Your task to perform on an android device: check battery use Image 0: 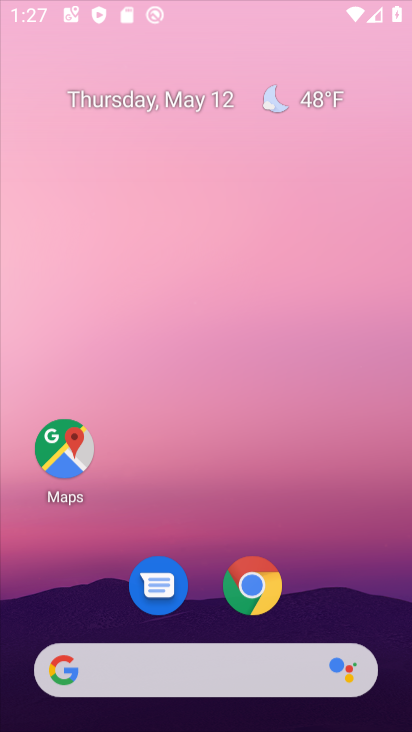
Step 0: click (247, 245)
Your task to perform on an android device: check battery use Image 1: 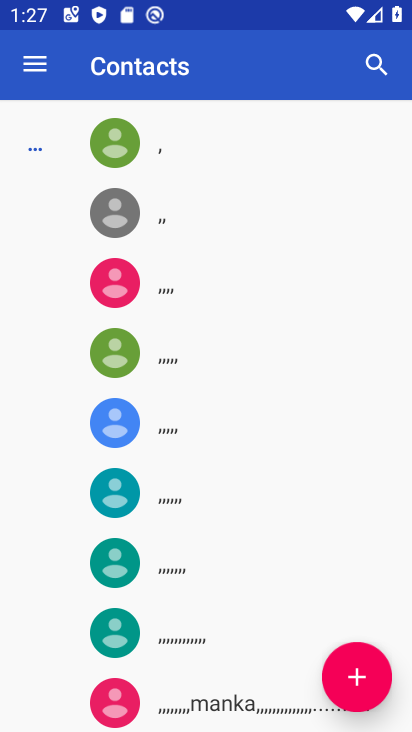
Step 1: press home button
Your task to perform on an android device: check battery use Image 2: 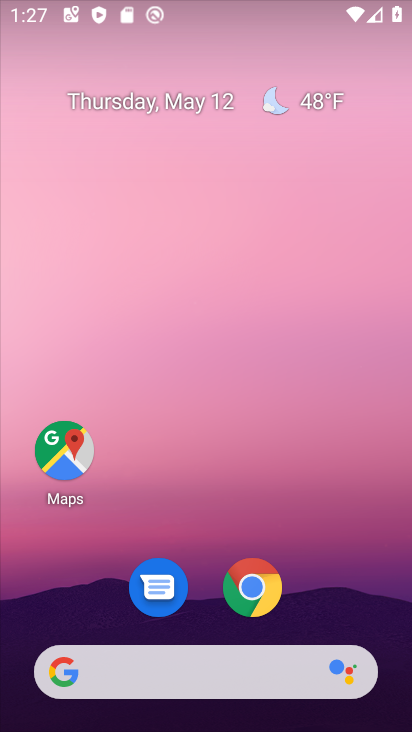
Step 2: drag from (229, 668) to (317, 136)
Your task to perform on an android device: check battery use Image 3: 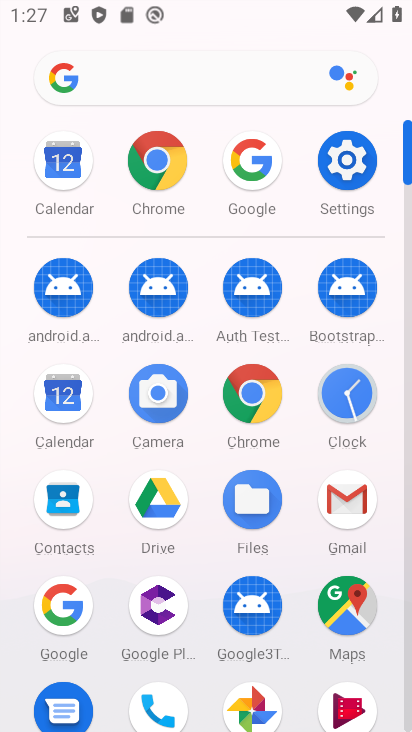
Step 3: click (337, 186)
Your task to perform on an android device: check battery use Image 4: 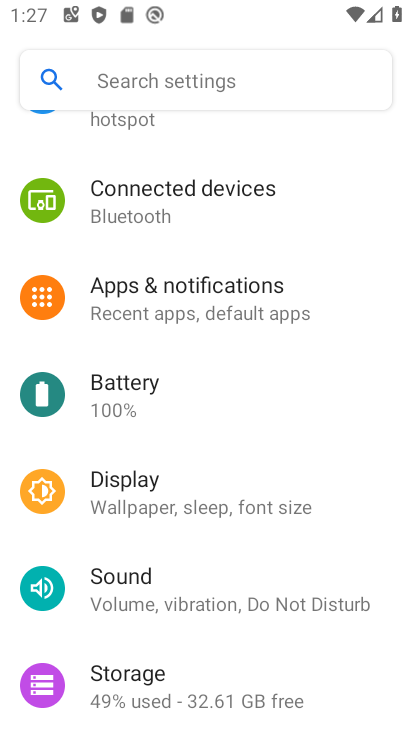
Step 4: click (167, 397)
Your task to perform on an android device: check battery use Image 5: 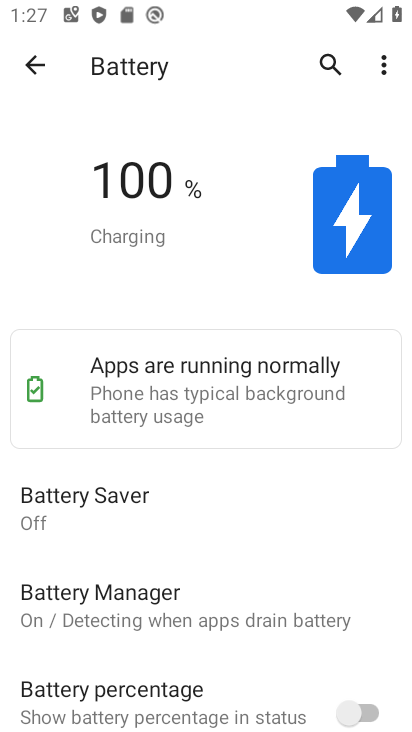
Step 5: task complete